Your task to perform on an android device: Open Google Maps and go to "Timeline" Image 0: 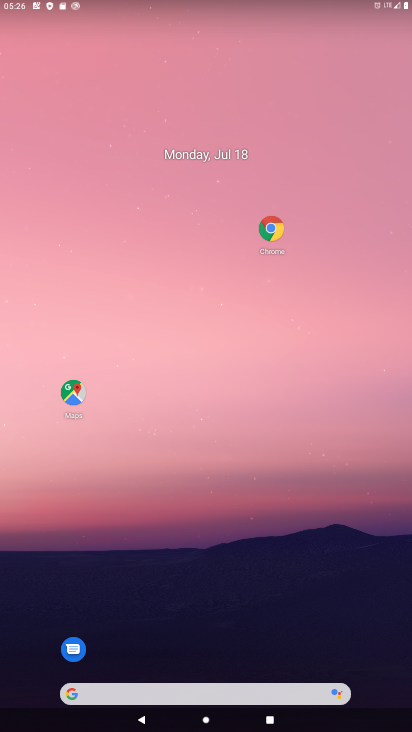
Step 0: click (274, 237)
Your task to perform on an android device: Open Google Maps and go to "Timeline" Image 1: 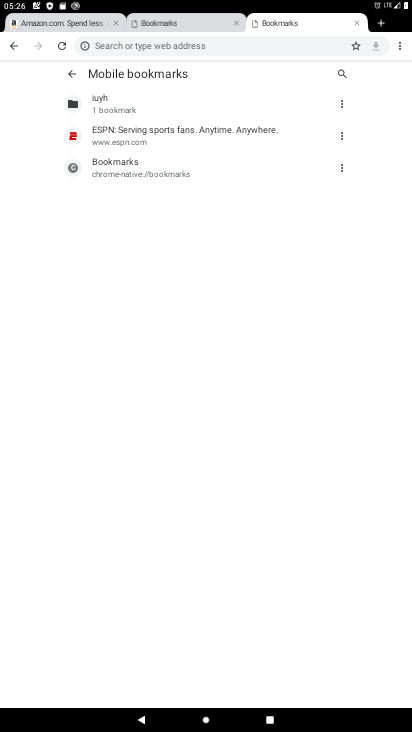
Step 1: press home button
Your task to perform on an android device: Open Google Maps and go to "Timeline" Image 2: 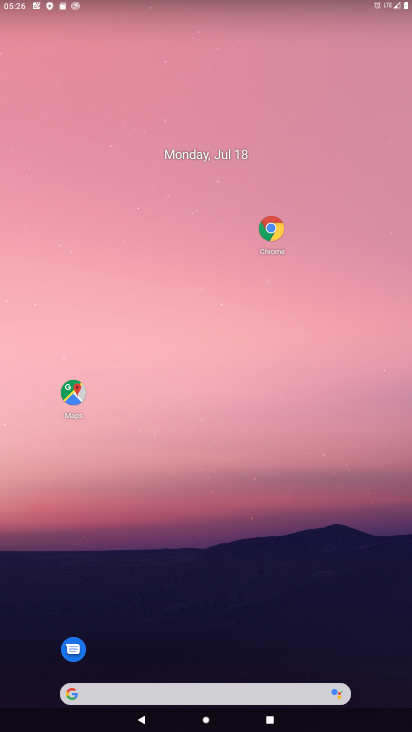
Step 2: click (68, 401)
Your task to perform on an android device: Open Google Maps and go to "Timeline" Image 3: 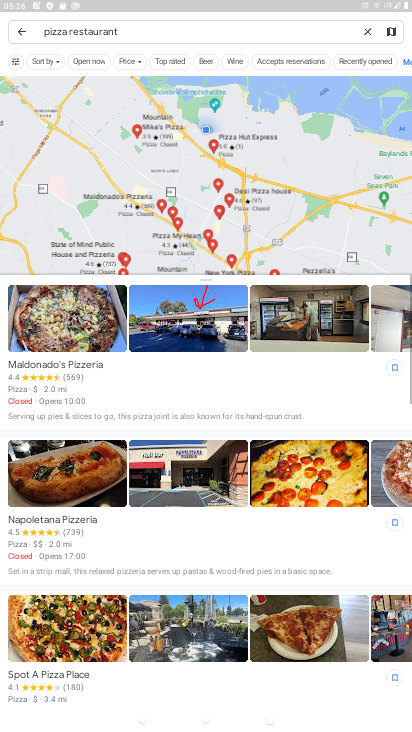
Step 3: click (21, 29)
Your task to perform on an android device: Open Google Maps and go to "Timeline" Image 4: 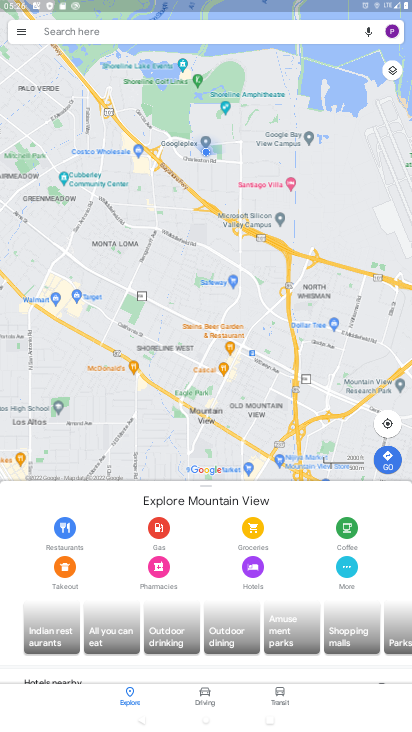
Step 4: click (26, 33)
Your task to perform on an android device: Open Google Maps and go to "Timeline" Image 5: 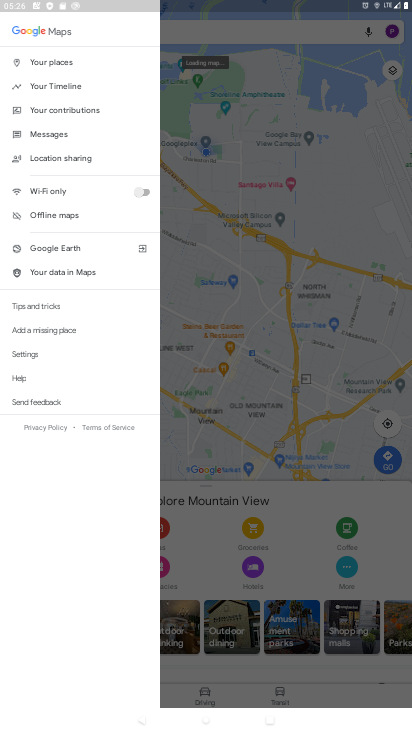
Step 5: click (78, 91)
Your task to perform on an android device: Open Google Maps and go to "Timeline" Image 6: 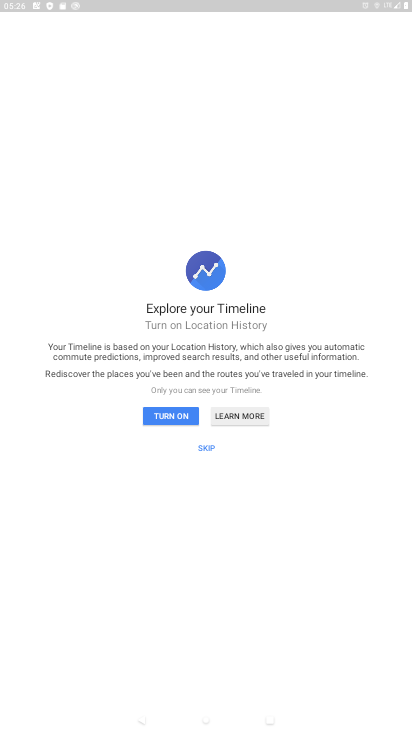
Step 6: click (164, 420)
Your task to perform on an android device: Open Google Maps and go to "Timeline" Image 7: 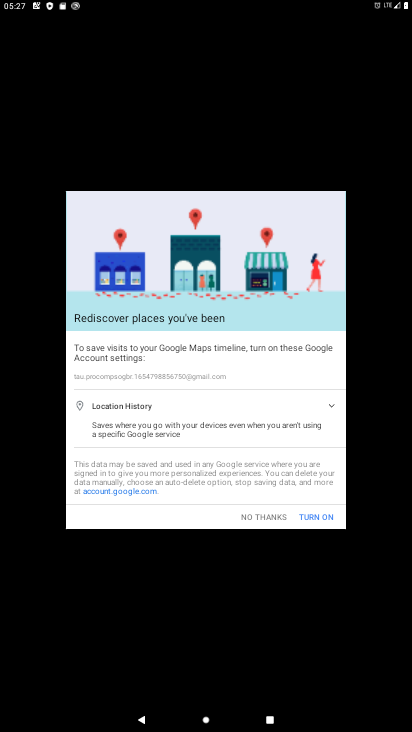
Step 7: click (322, 523)
Your task to perform on an android device: Open Google Maps and go to "Timeline" Image 8: 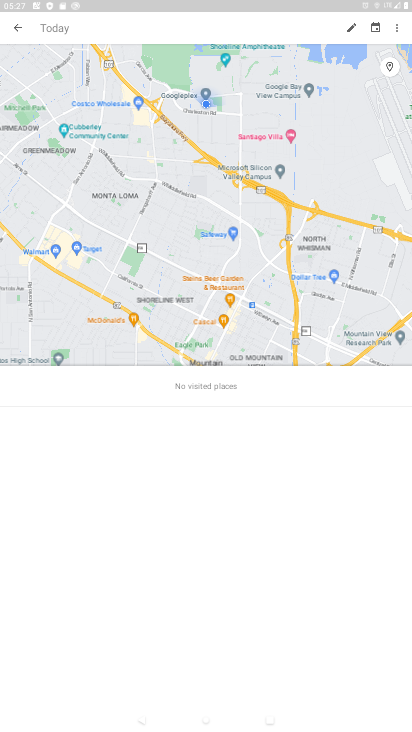
Step 8: task complete